Your task to perform on an android device: Clear all items from cart on bestbuy.com. Add "razer huntsman" to the cart on bestbuy.com, then select checkout. Image 0: 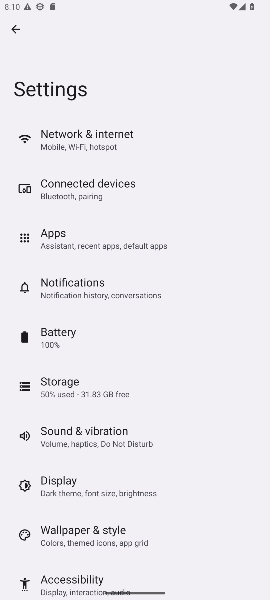
Step 0: press home button
Your task to perform on an android device: Clear all items from cart on bestbuy.com. Add "razer huntsman" to the cart on bestbuy.com, then select checkout. Image 1: 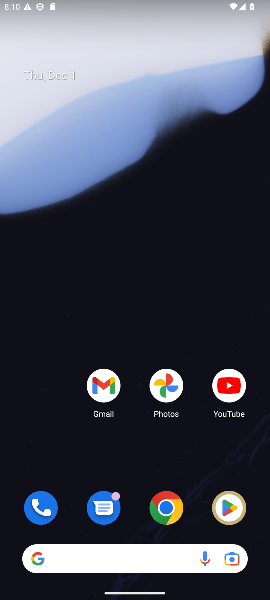
Step 1: click (161, 521)
Your task to perform on an android device: Clear all items from cart on bestbuy.com. Add "razer huntsman" to the cart on bestbuy.com, then select checkout. Image 2: 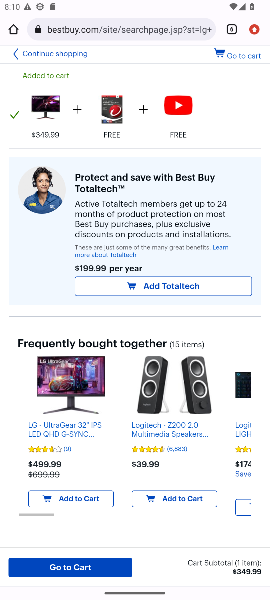
Step 2: click (228, 55)
Your task to perform on an android device: Clear all items from cart on bestbuy.com. Add "razer huntsman" to the cart on bestbuy.com, then select checkout. Image 3: 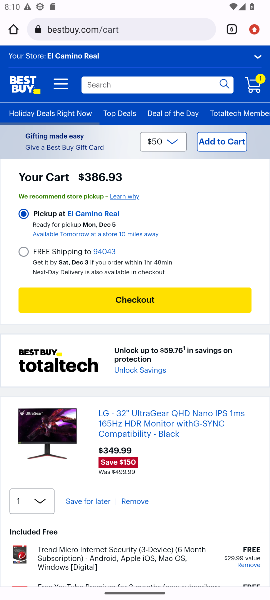
Step 3: click (133, 502)
Your task to perform on an android device: Clear all items from cart on bestbuy.com. Add "razer huntsman" to the cart on bestbuy.com, then select checkout. Image 4: 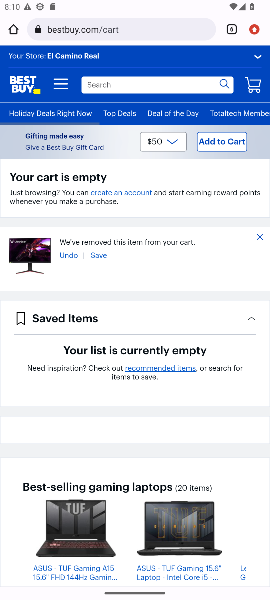
Step 4: click (109, 89)
Your task to perform on an android device: Clear all items from cart on bestbuy.com. Add "razer huntsman" to the cart on bestbuy.com, then select checkout. Image 5: 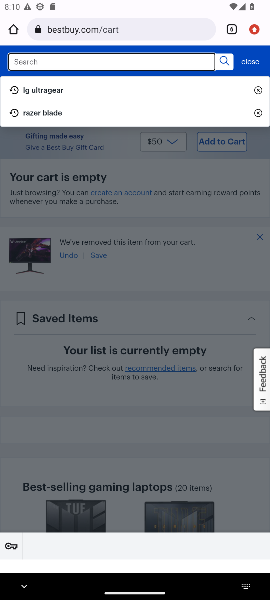
Step 5: type "razer huntsman"
Your task to perform on an android device: Clear all items from cart on bestbuy.com. Add "razer huntsman" to the cart on bestbuy.com, then select checkout. Image 6: 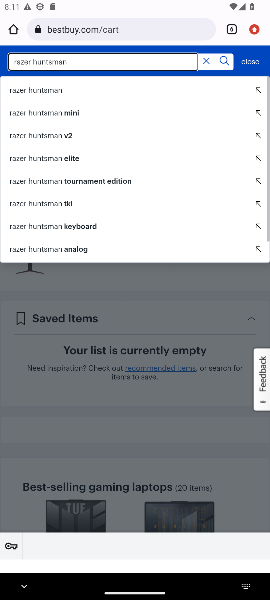
Step 6: click (227, 62)
Your task to perform on an android device: Clear all items from cart on bestbuy.com. Add "razer huntsman" to the cart on bestbuy.com, then select checkout. Image 7: 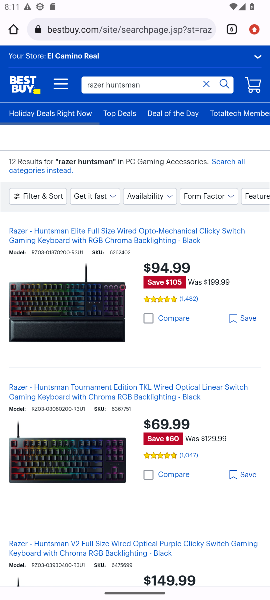
Step 7: click (59, 306)
Your task to perform on an android device: Clear all items from cart on bestbuy.com. Add "razer huntsman" to the cart on bestbuy.com, then select checkout. Image 8: 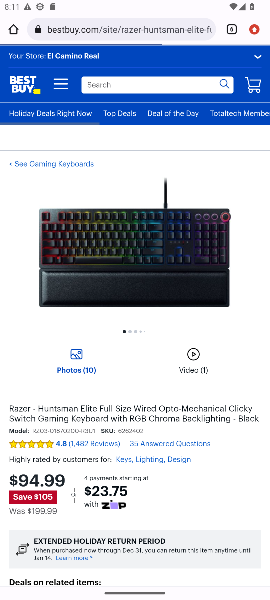
Step 8: drag from (189, 506) to (144, 189)
Your task to perform on an android device: Clear all items from cart on bestbuy.com. Add "razer huntsman" to the cart on bestbuy.com, then select checkout. Image 9: 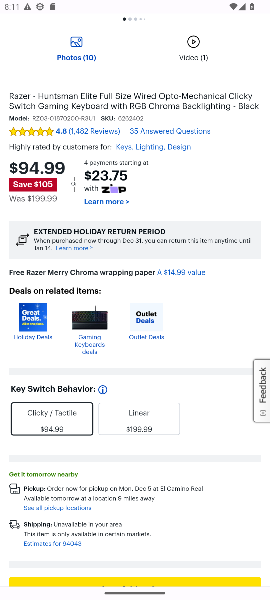
Step 9: drag from (177, 564) to (168, 295)
Your task to perform on an android device: Clear all items from cart on bestbuy.com. Add "razer huntsman" to the cart on bestbuy.com, then select checkout. Image 10: 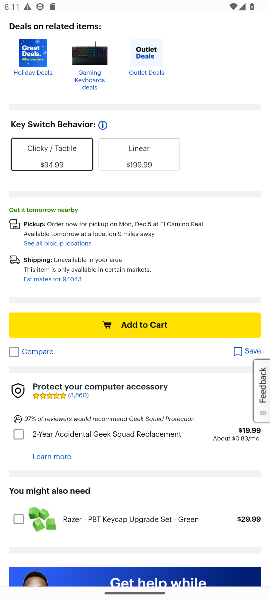
Step 10: click (136, 322)
Your task to perform on an android device: Clear all items from cart on bestbuy.com. Add "razer huntsman" to the cart on bestbuy.com, then select checkout. Image 11: 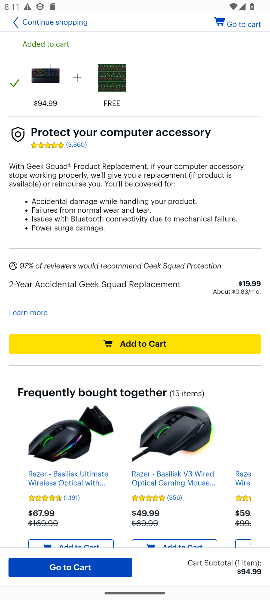
Step 11: click (85, 568)
Your task to perform on an android device: Clear all items from cart on bestbuy.com. Add "razer huntsman" to the cart on bestbuy.com, then select checkout. Image 12: 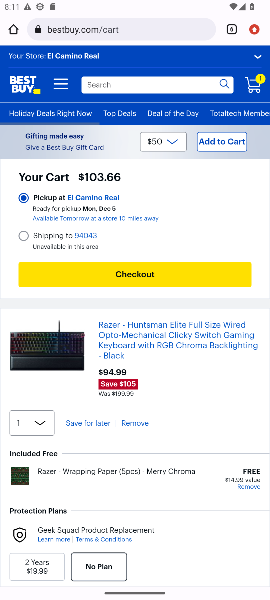
Step 12: click (138, 281)
Your task to perform on an android device: Clear all items from cart on bestbuy.com. Add "razer huntsman" to the cart on bestbuy.com, then select checkout. Image 13: 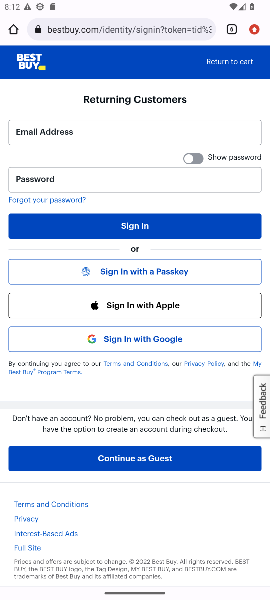
Step 13: task complete